Your task to perform on an android device: toggle airplane mode Image 0: 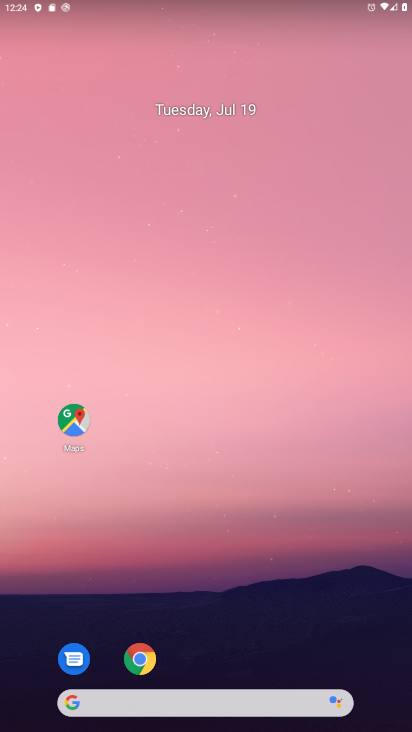
Step 0: drag from (191, 696) to (157, 219)
Your task to perform on an android device: toggle airplane mode Image 1: 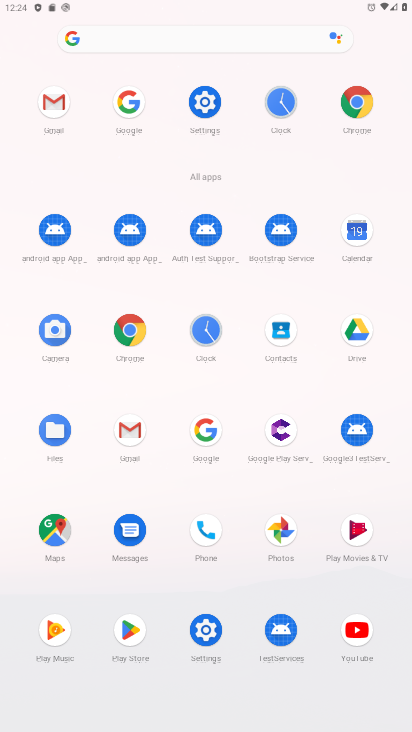
Step 1: click (197, 96)
Your task to perform on an android device: toggle airplane mode Image 2: 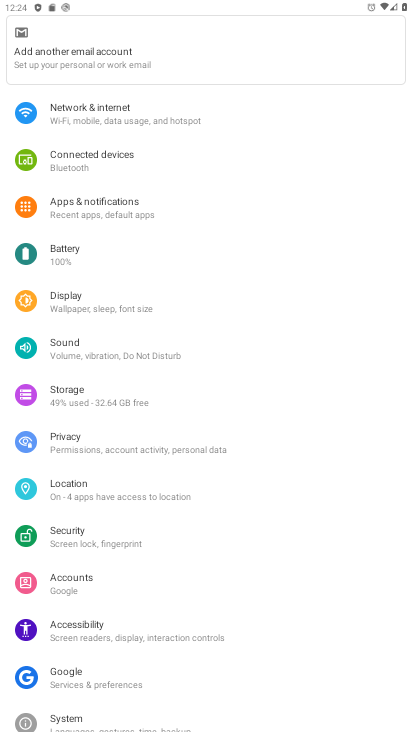
Step 2: click (110, 124)
Your task to perform on an android device: toggle airplane mode Image 3: 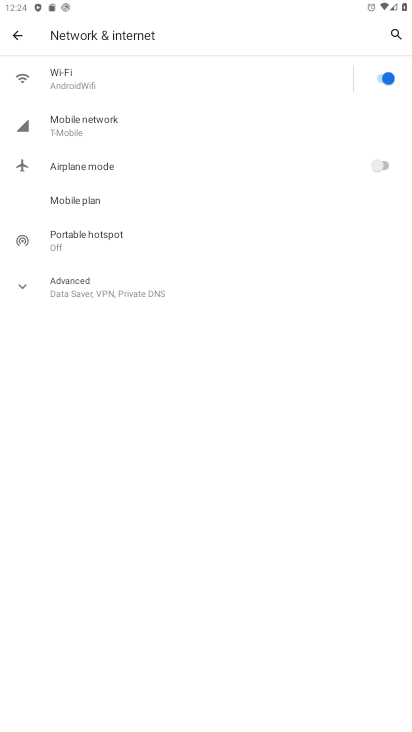
Step 3: click (373, 164)
Your task to perform on an android device: toggle airplane mode Image 4: 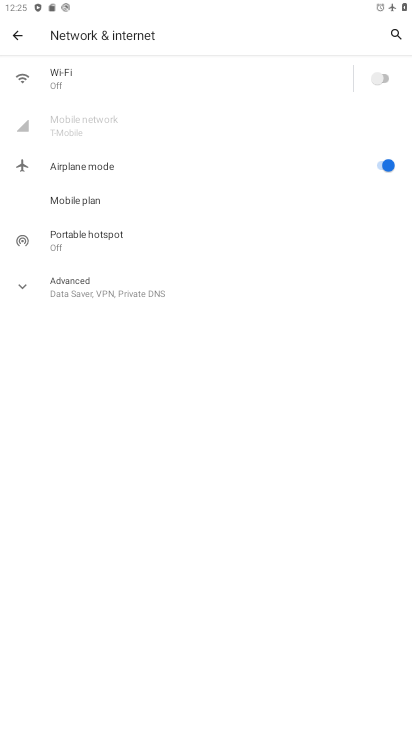
Step 4: task complete